Your task to perform on an android device: make emails show in primary in the gmail app Image 0: 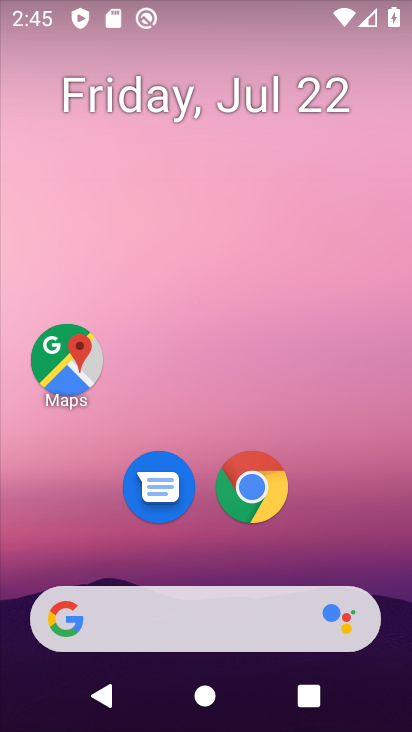
Step 0: drag from (186, 520) to (265, 5)
Your task to perform on an android device: make emails show in primary in the gmail app Image 1: 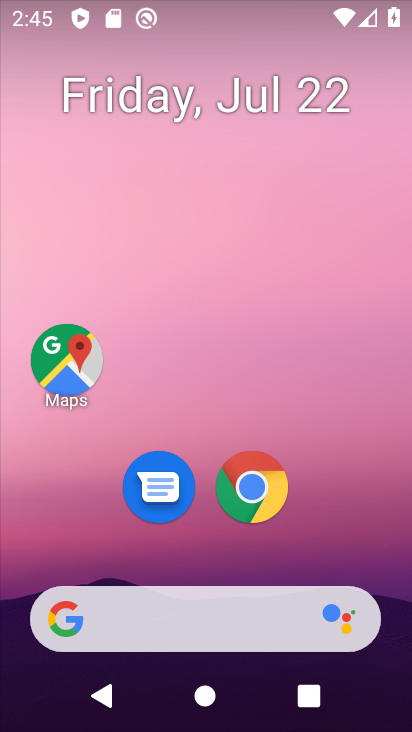
Step 1: drag from (69, 512) to (219, 17)
Your task to perform on an android device: make emails show in primary in the gmail app Image 2: 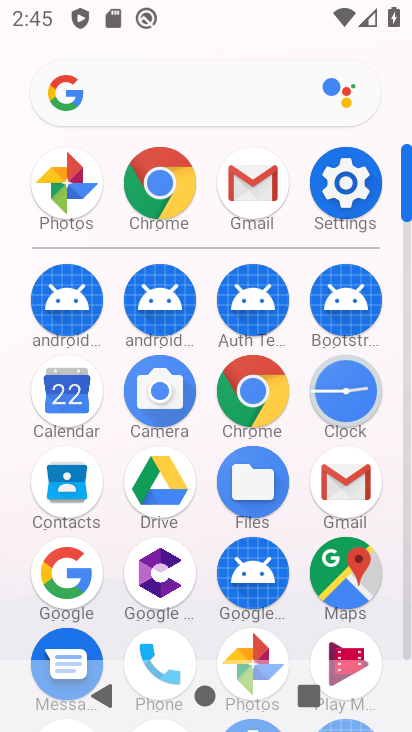
Step 2: click (244, 184)
Your task to perform on an android device: make emails show in primary in the gmail app Image 3: 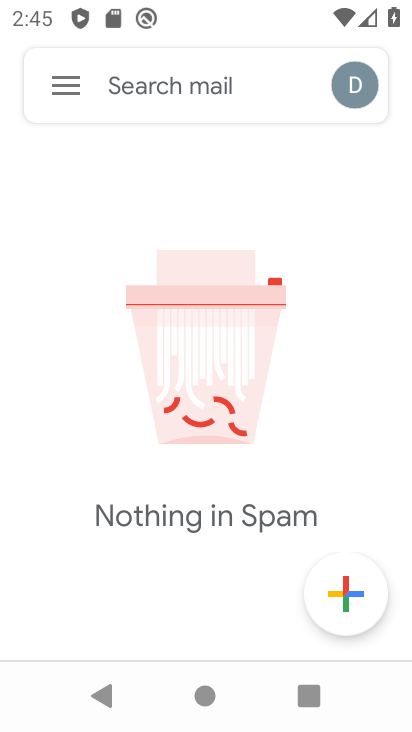
Step 3: click (53, 82)
Your task to perform on an android device: make emails show in primary in the gmail app Image 4: 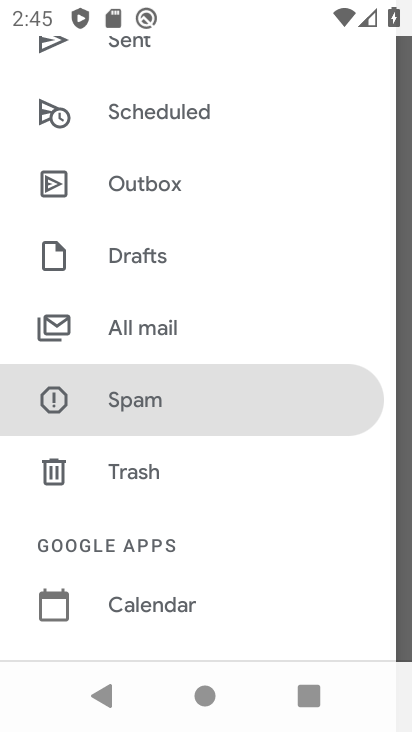
Step 4: drag from (320, 135) to (239, 231)
Your task to perform on an android device: make emails show in primary in the gmail app Image 5: 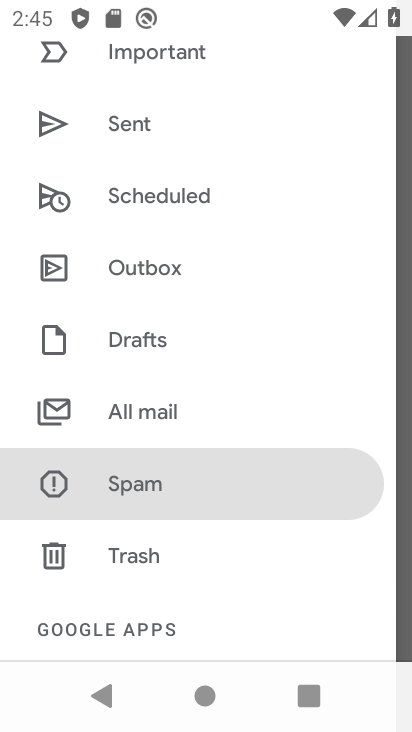
Step 5: drag from (169, 580) to (247, 0)
Your task to perform on an android device: make emails show in primary in the gmail app Image 6: 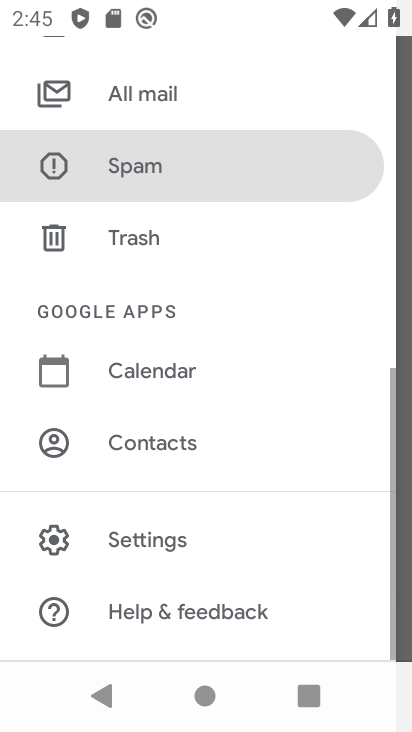
Step 6: click (148, 529)
Your task to perform on an android device: make emails show in primary in the gmail app Image 7: 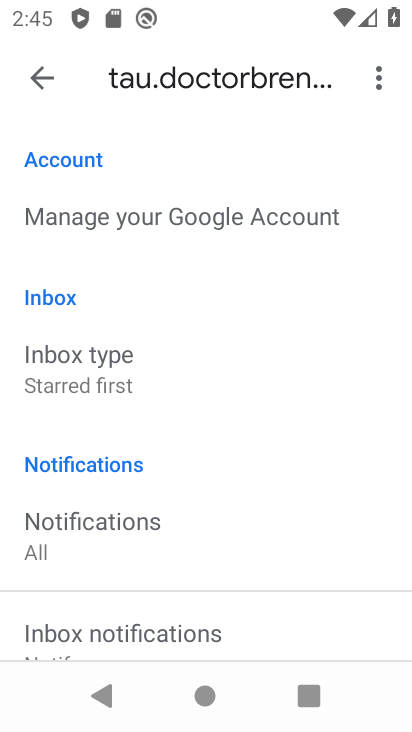
Step 7: task complete